Your task to perform on an android device: turn on improve location accuracy Image 0: 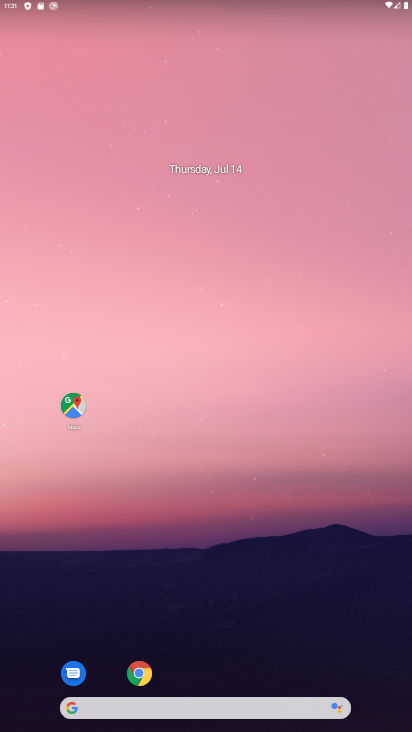
Step 0: drag from (256, 652) to (211, 179)
Your task to perform on an android device: turn on improve location accuracy Image 1: 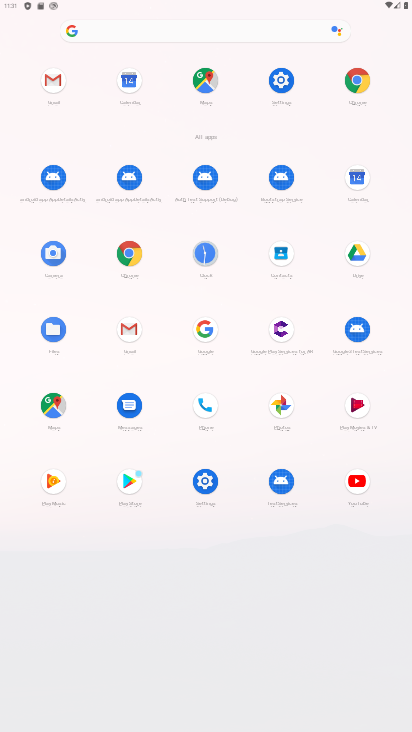
Step 1: click (128, 327)
Your task to perform on an android device: turn on improve location accuracy Image 2: 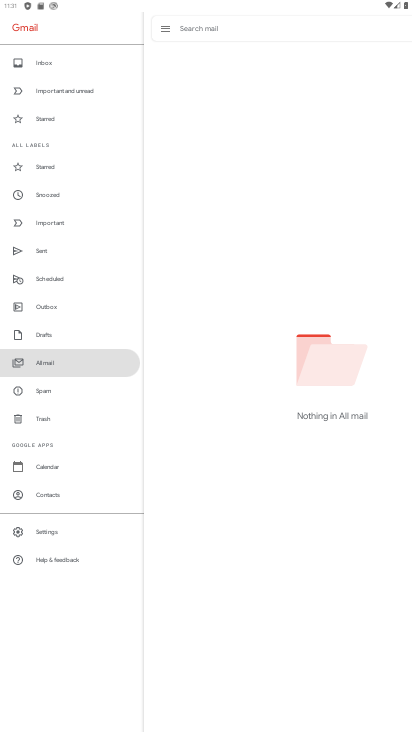
Step 2: press home button
Your task to perform on an android device: turn on improve location accuracy Image 3: 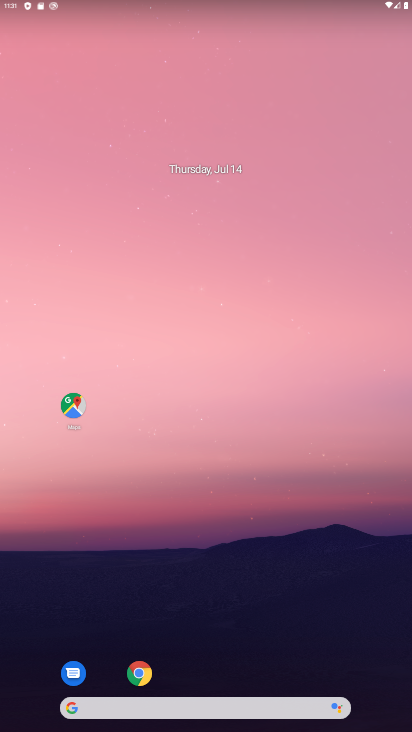
Step 3: drag from (315, 662) to (275, 107)
Your task to perform on an android device: turn on improve location accuracy Image 4: 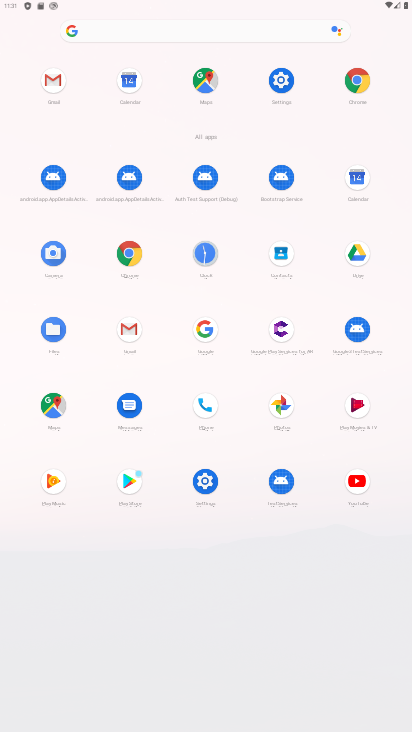
Step 4: click (278, 95)
Your task to perform on an android device: turn on improve location accuracy Image 5: 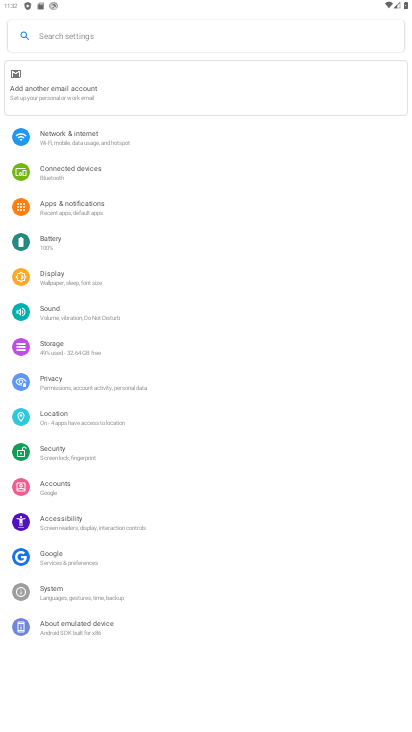
Step 5: click (58, 422)
Your task to perform on an android device: turn on improve location accuracy Image 6: 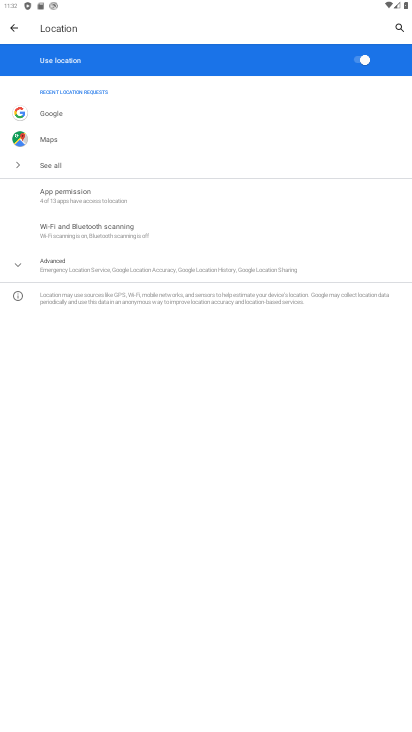
Step 6: click (80, 256)
Your task to perform on an android device: turn on improve location accuracy Image 7: 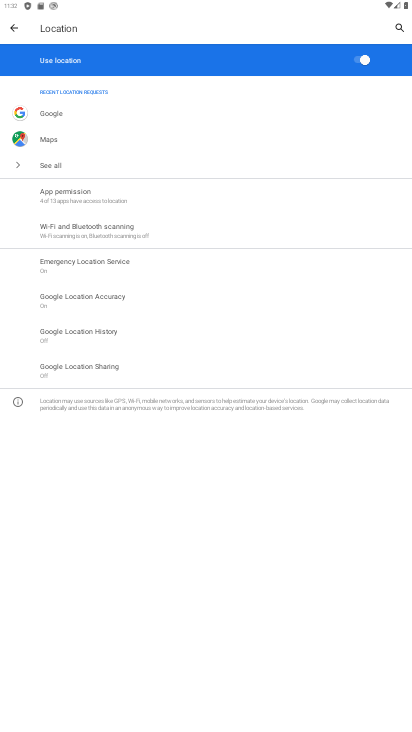
Step 7: click (130, 296)
Your task to perform on an android device: turn on improve location accuracy Image 8: 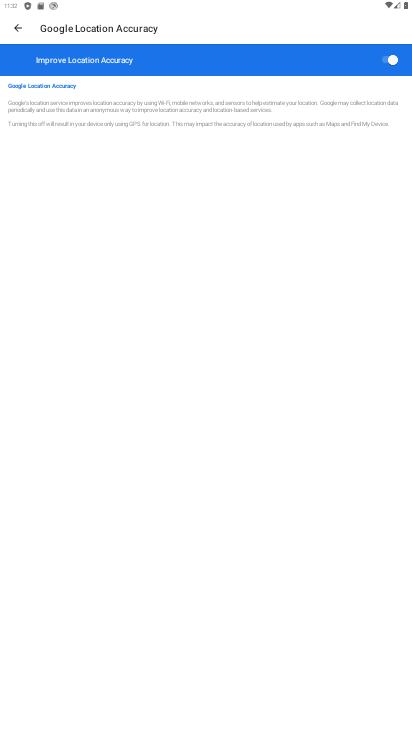
Step 8: task complete